Your task to perform on an android device: Show me popular videos on Youtube Image 0: 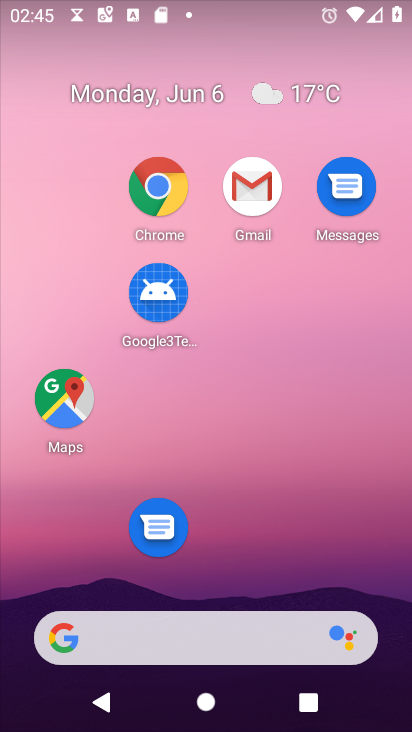
Step 0: drag from (286, 517) to (276, 53)
Your task to perform on an android device: Show me popular videos on Youtube Image 1: 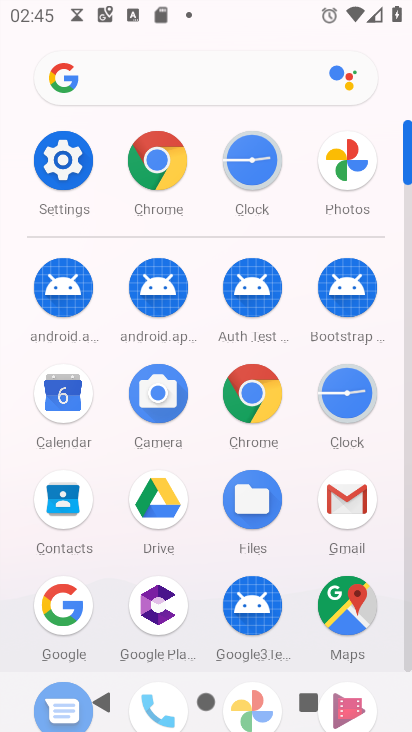
Step 1: click (407, 425)
Your task to perform on an android device: Show me popular videos on Youtube Image 2: 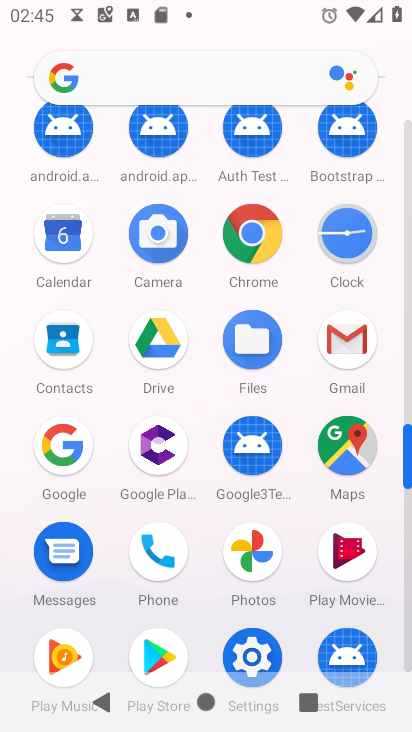
Step 2: click (406, 541)
Your task to perform on an android device: Show me popular videos on Youtube Image 3: 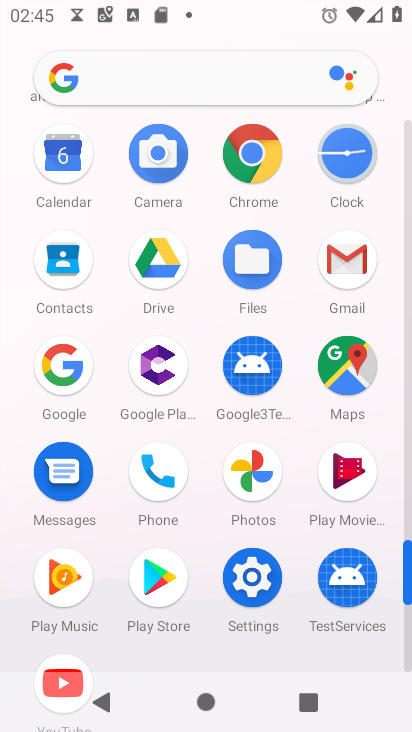
Step 3: click (405, 631)
Your task to perform on an android device: Show me popular videos on Youtube Image 4: 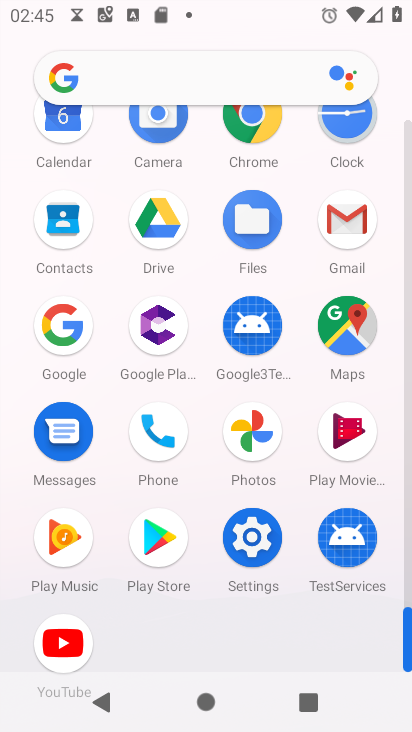
Step 4: click (64, 639)
Your task to perform on an android device: Show me popular videos on Youtube Image 5: 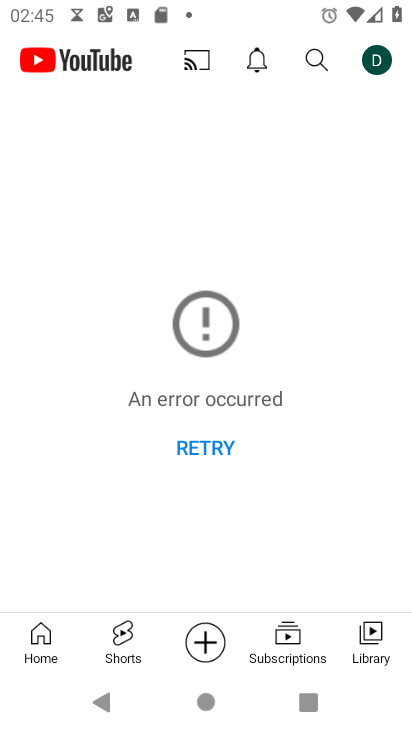
Step 5: click (44, 640)
Your task to perform on an android device: Show me popular videos on Youtube Image 6: 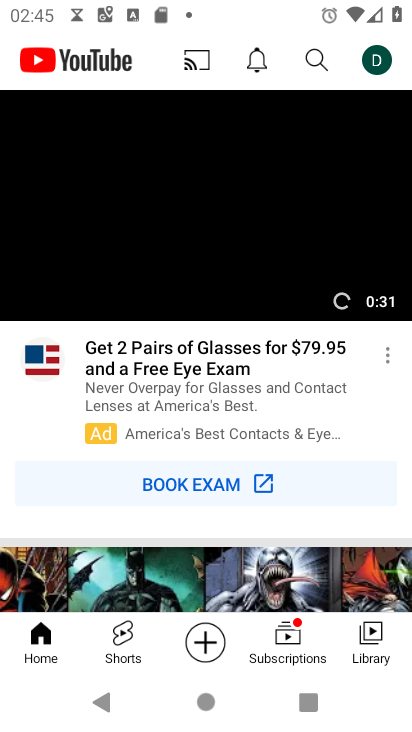
Step 6: drag from (389, 480) to (394, 178)
Your task to perform on an android device: Show me popular videos on Youtube Image 7: 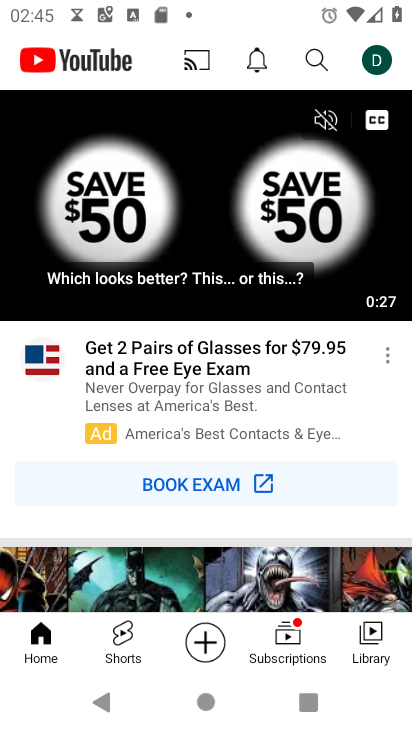
Step 7: click (316, 55)
Your task to perform on an android device: Show me popular videos on Youtube Image 8: 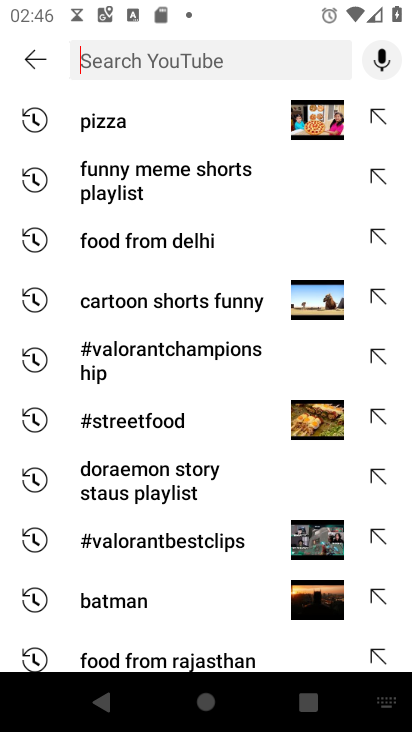
Step 8: type "Popular video"
Your task to perform on an android device: Show me popular videos on Youtube Image 9: 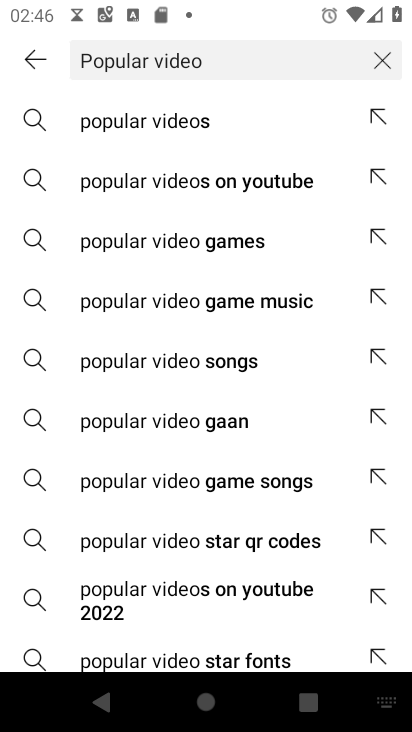
Step 9: click (241, 122)
Your task to perform on an android device: Show me popular videos on Youtube Image 10: 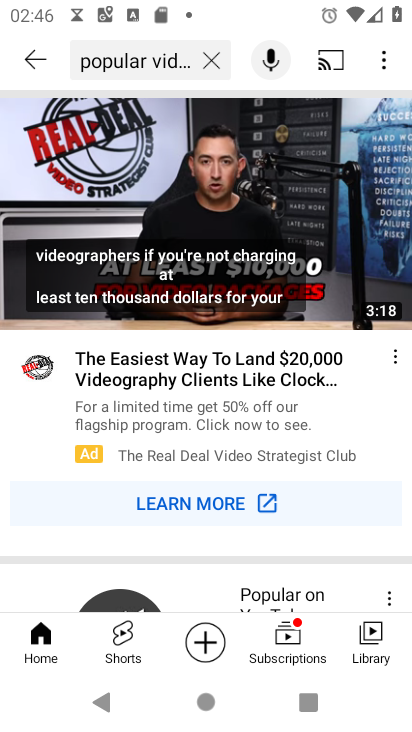
Step 10: drag from (348, 452) to (344, 355)
Your task to perform on an android device: Show me popular videos on Youtube Image 11: 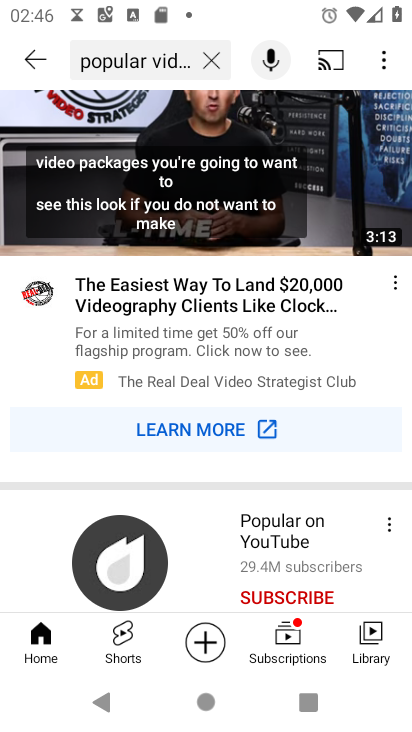
Step 11: click (319, 549)
Your task to perform on an android device: Show me popular videos on Youtube Image 12: 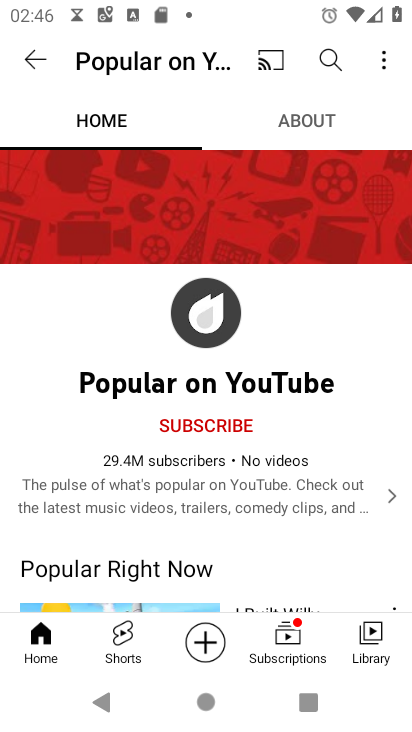
Step 12: drag from (378, 526) to (326, 201)
Your task to perform on an android device: Show me popular videos on Youtube Image 13: 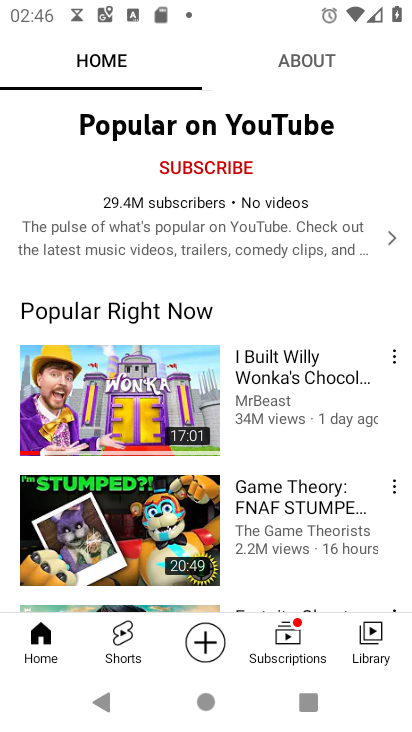
Step 13: click (117, 420)
Your task to perform on an android device: Show me popular videos on Youtube Image 14: 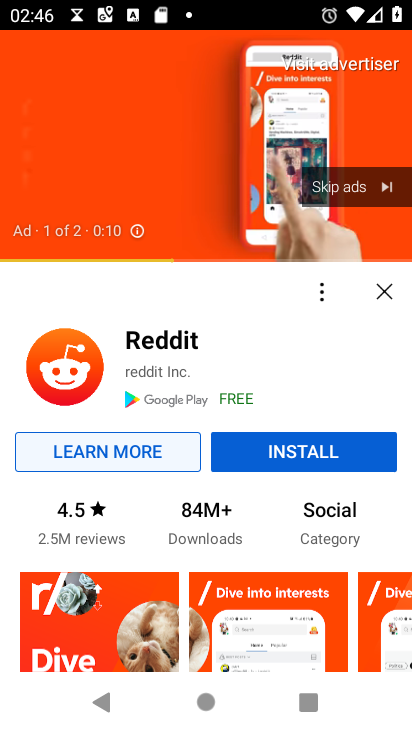
Step 14: click (361, 184)
Your task to perform on an android device: Show me popular videos on Youtube Image 15: 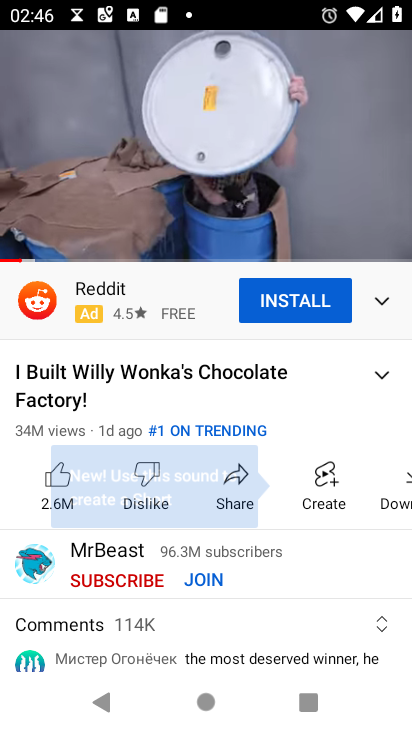
Step 15: task complete